Your task to perform on an android device: Open Google Image 0: 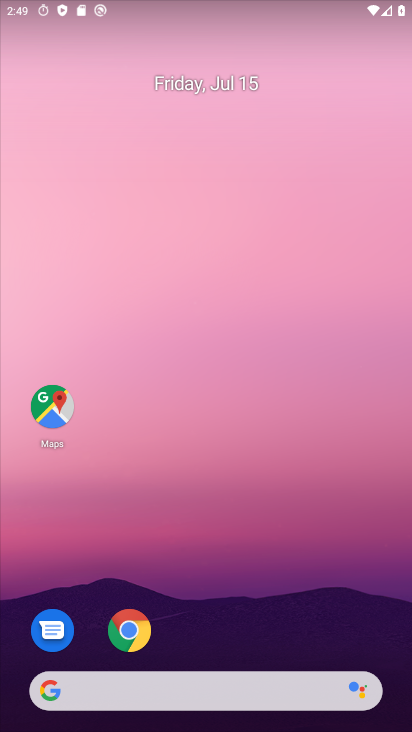
Step 0: drag from (256, 618) to (293, 89)
Your task to perform on an android device: Open Google Image 1: 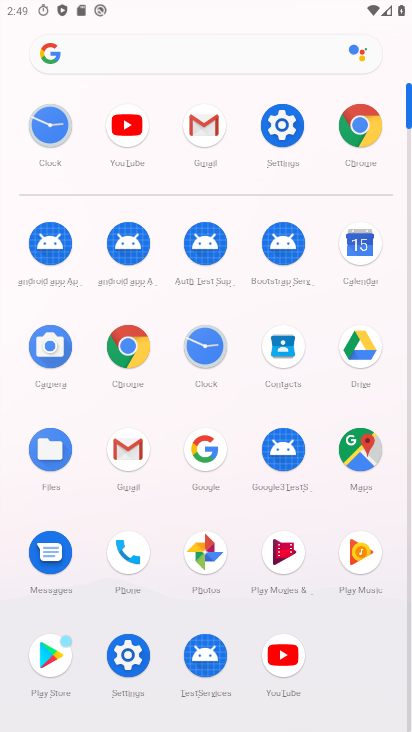
Step 1: click (202, 454)
Your task to perform on an android device: Open Google Image 2: 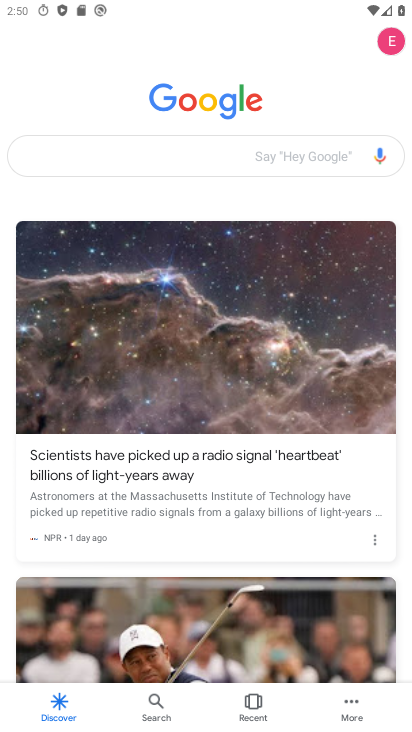
Step 2: task complete